Your task to perform on an android device: toggle show notifications on the lock screen Image 0: 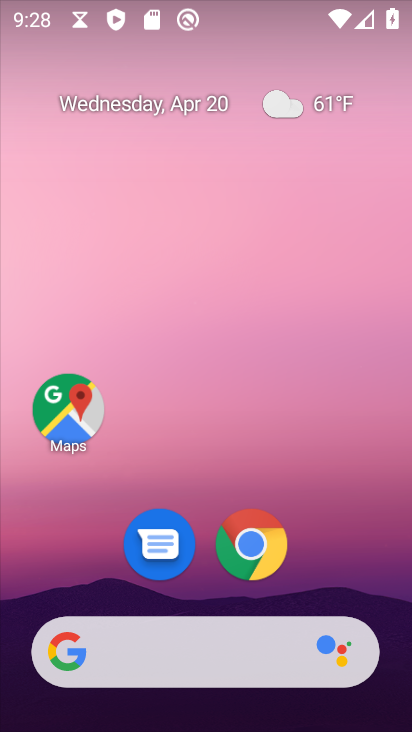
Step 0: drag from (193, 642) to (297, 72)
Your task to perform on an android device: toggle show notifications on the lock screen Image 1: 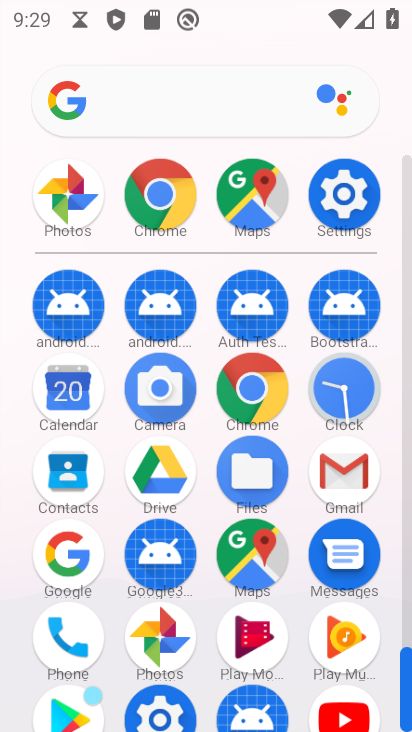
Step 1: click (345, 206)
Your task to perform on an android device: toggle show notifications on the lock screen Image 2: 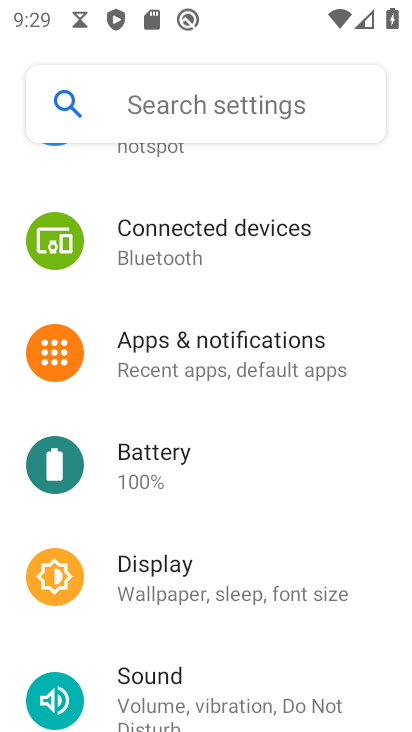
Step 2: click (259, 348)
Your task to perform on an android device: toggle show notifications on the lock screen Image 3: 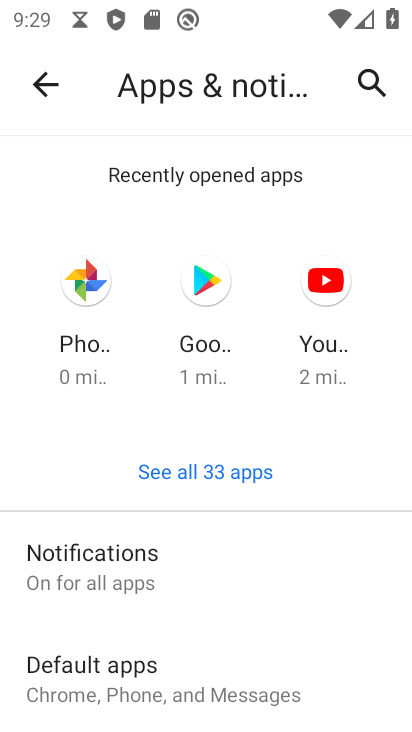
Step 3: click (114, 562)
Your task to perform on an android device: toggle show notifications on the lock screen Image 4: 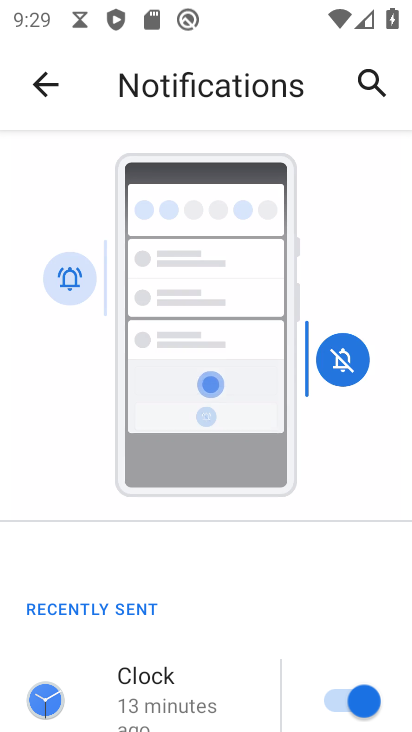
Step 4: drag from (235, 599) to (341, 150)
Your task to perform on an android device: toggle show notifications on the lock screen Image 5: 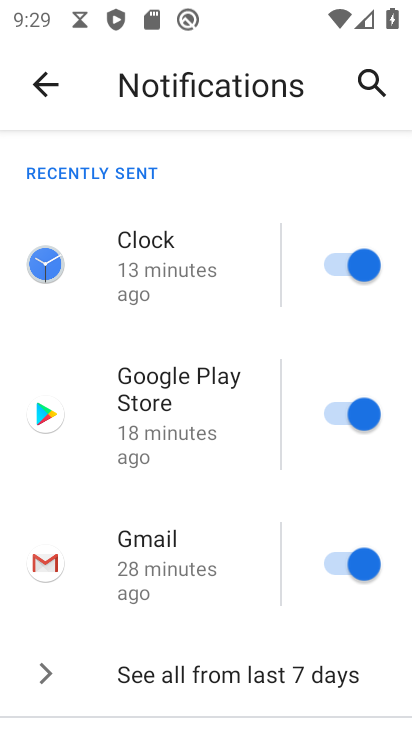
Step 5: drag from (194, 614) to (409, 86)
Your task to perform on an android device: toggle show notifications on the lock screen Image 6: 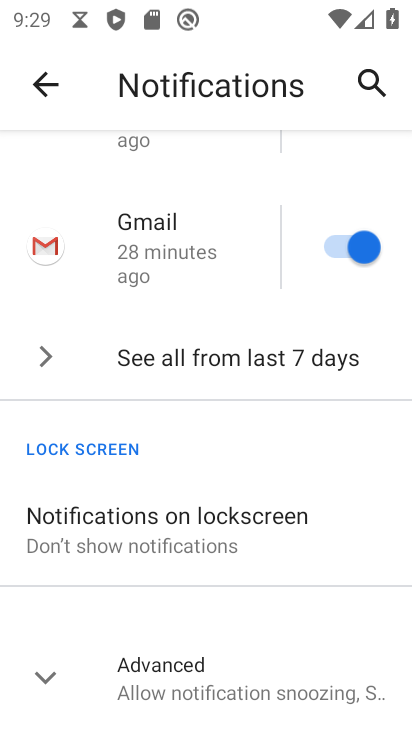
Step 6: click (191, 526)
Your task to perform on an android device: toggle show notifications on the lock screen Image 7: 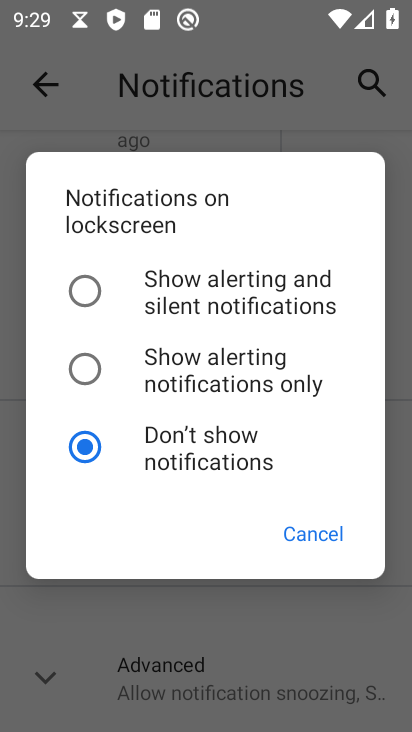
Step 7: click (87, 285)
Your task to perform on an android device: toggle show notifications on the lock screen Image 8: 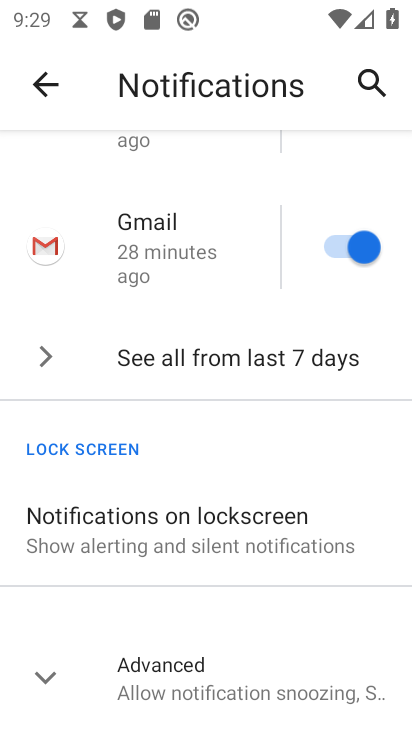
Step 8: task complete